Your task to perform on an android device: Show me recent news Image 0: 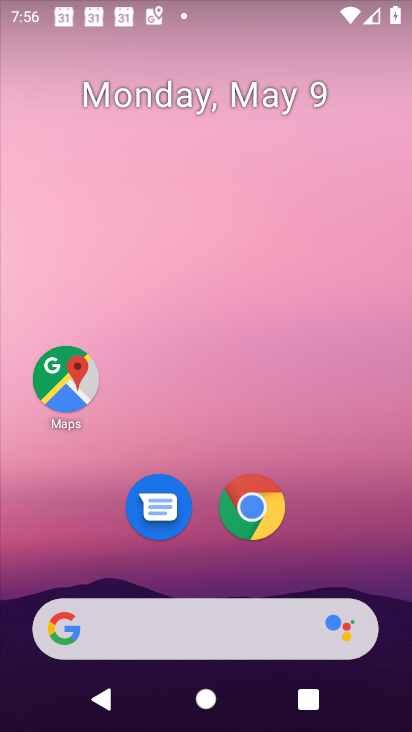
Step 0: drag from (272, 663) to (383, 72)
Your task to perform on an android device: Show me recent news Image 1: 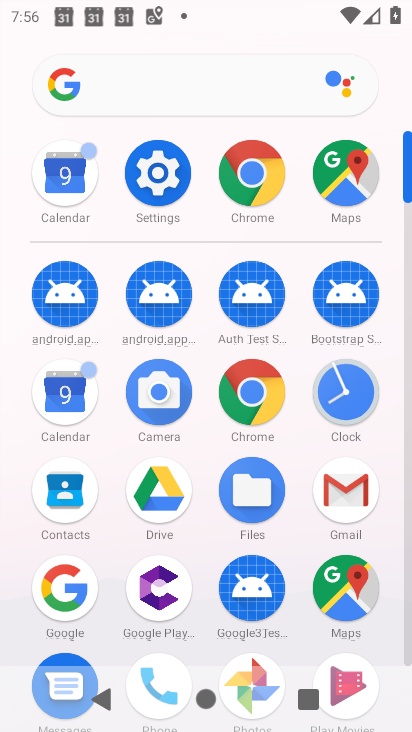
Step 1: click (176, 96)
Your task to perform on an android device: Show me recent news Image 2: 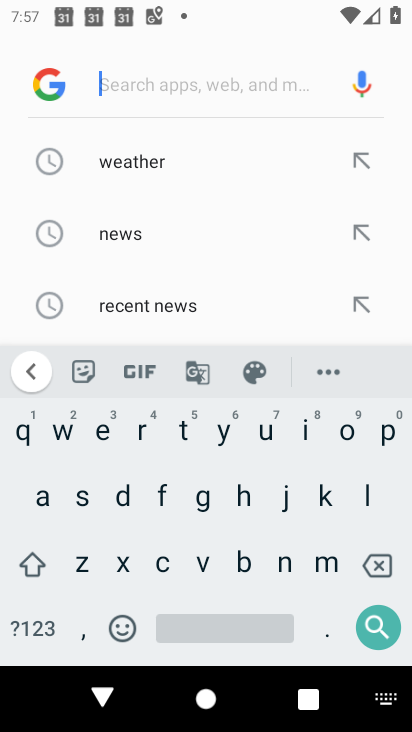
Step 2: click (130, 307)
Your task to perform on an android device: Show me recent news Image 3: 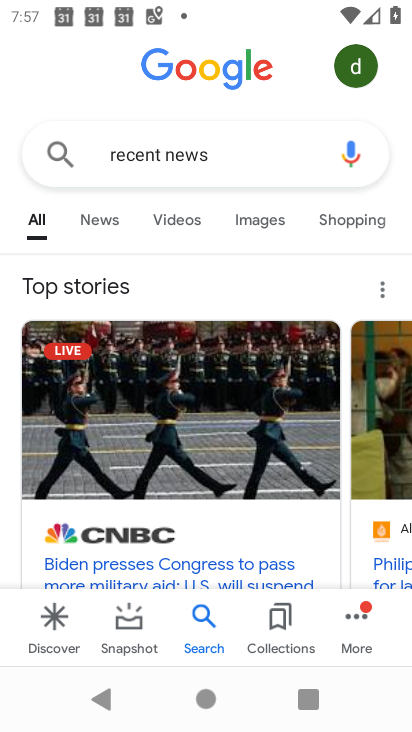
Step 3: task complete